Your task to perform on an android device: read, delete, or share a saved page in the chrome app Image 0: 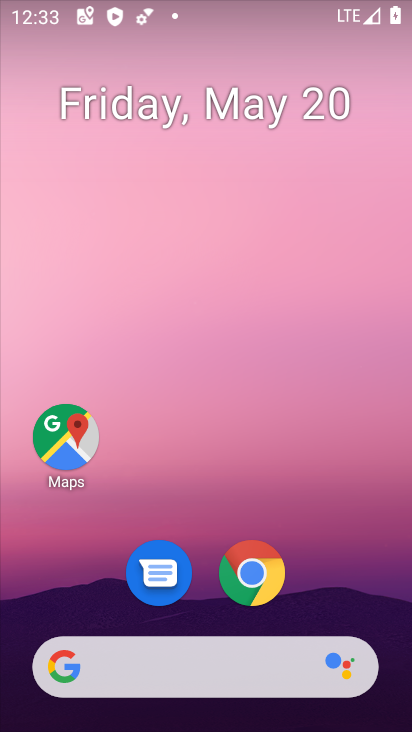
Step 0: click (237, 578)
Your task to perform on an android device: read, delete, or share a saved page in the chrome app Image 1: 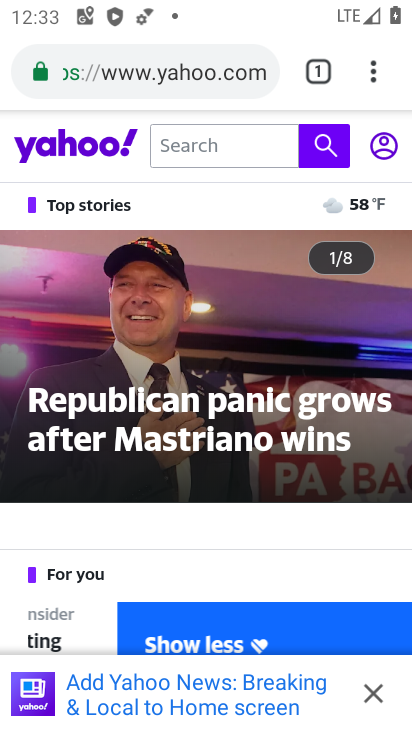
Step 1: click (368, 67)
Your task to perform on an android device: read, delete, or share a saved page in the chrome app Image 2: 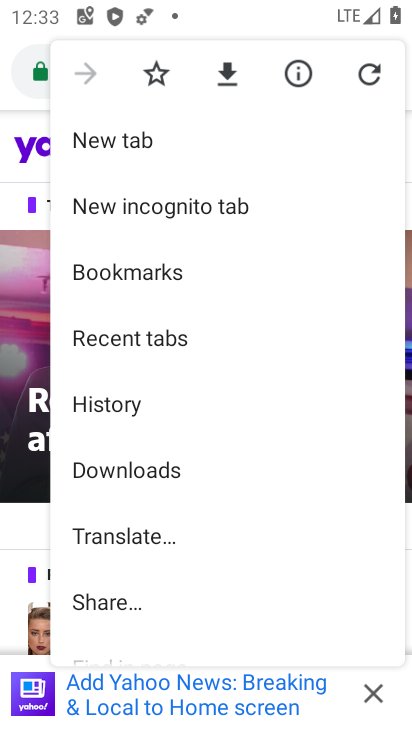
Step 2: click (150, 476)
Your task to perform on an android device: read, delete, or share a saved page in the chrome app Image 3: 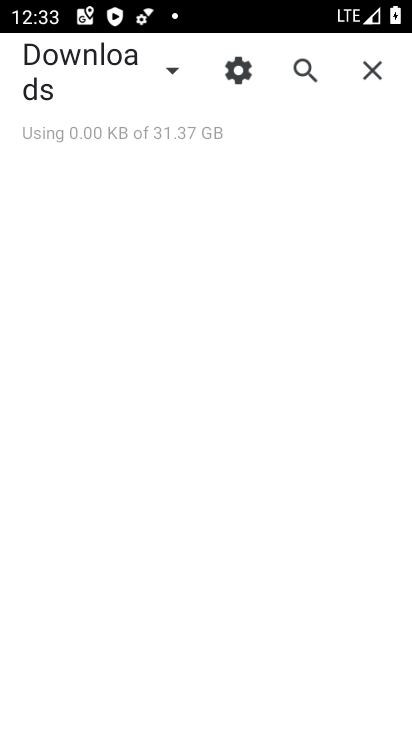
Step 3: task complete